Your task to perform on an android device: turn off translation in the chrome app Image 0: 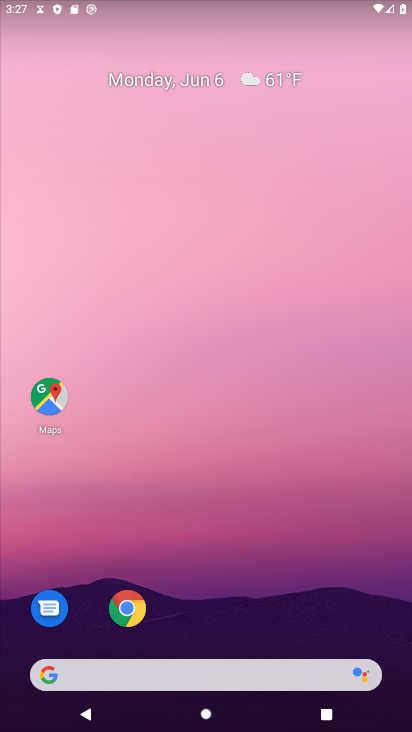
Step 0: click (119, 601)
Your task to perform on an android device: turn off translation in the chrome app Image 1: 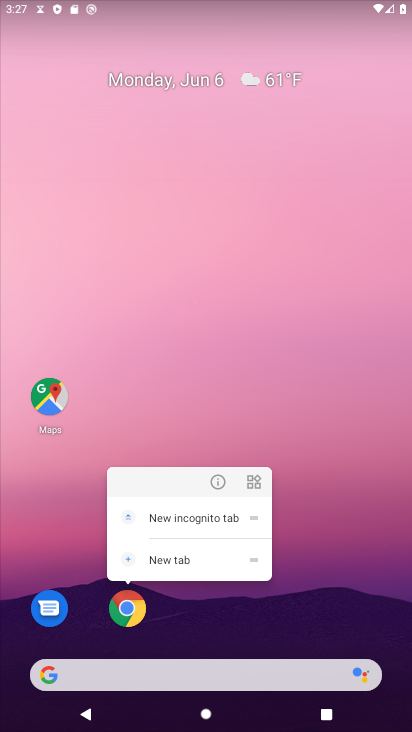
Step 1: click (119, 601)
Your task to perform on an android device: turn off translation in the chrome app Image 2: 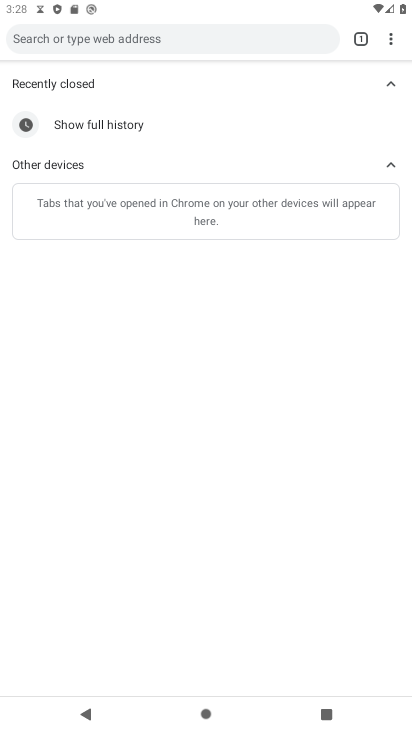
Step 2: click (387, 31)
Your task to perform on an android device: turn off translation in the chrome app Image 3: 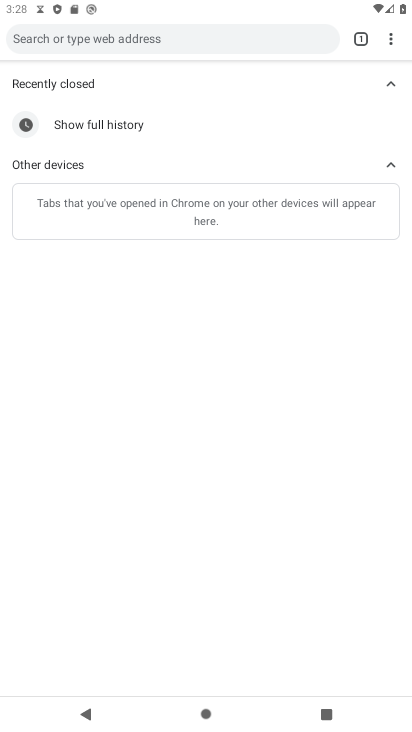
Step 3: click (384, 39)
Your task to perform on an android device: turn off translation in the chrome app Image 4: 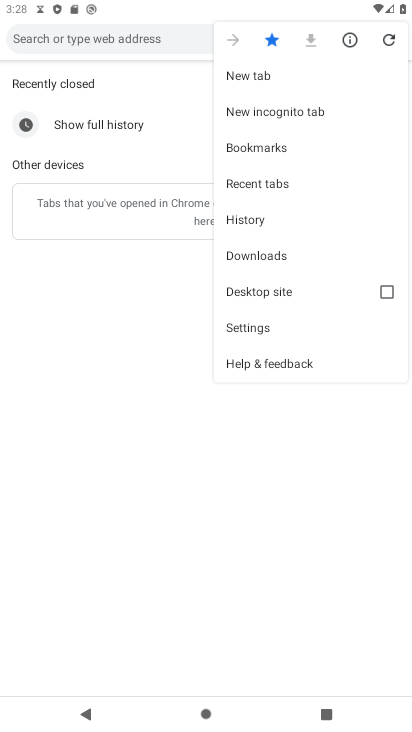
Step 4: click (258, 320)
Your task to perform on an android device: turn off translation in the chrome app Image 5: 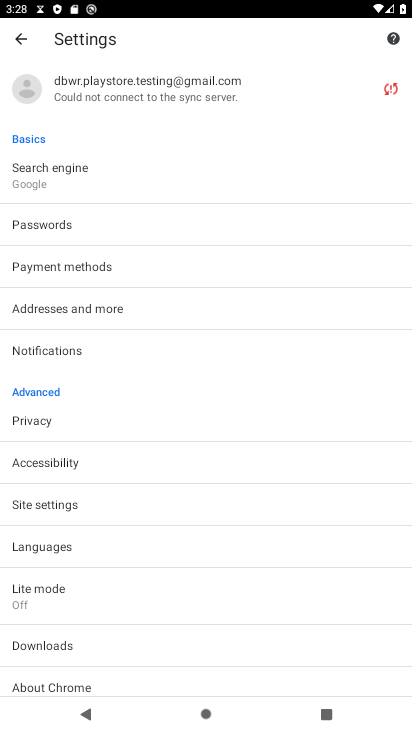
Step 5: drag from (159, 674) to (151, 424)
Your task to perform on an android device: turn off translation in the chrome app Image 6: 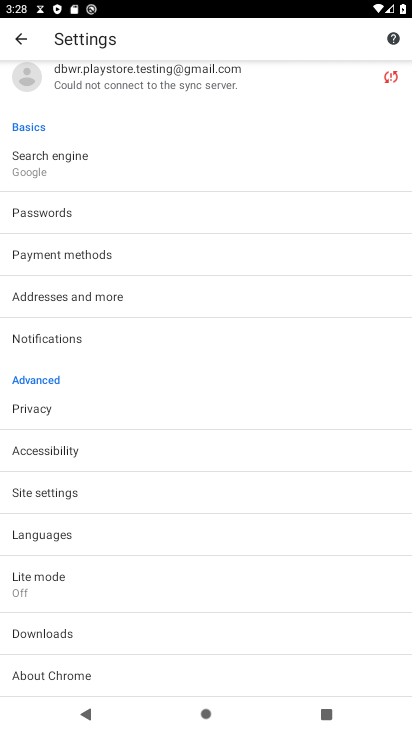
Step 6: click (49, 532)
Your task to perform on an android device: turn off translation in the chrome app Image 7: 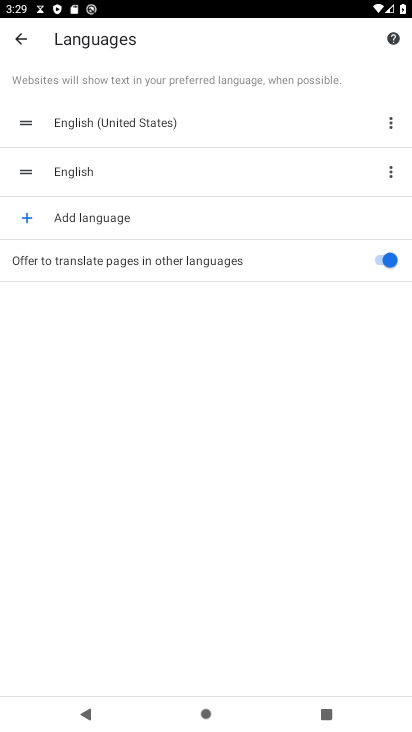
Step 7: click (372, 263)
Your task to perform on an android device: turn off translation in the chrome app Image 8: 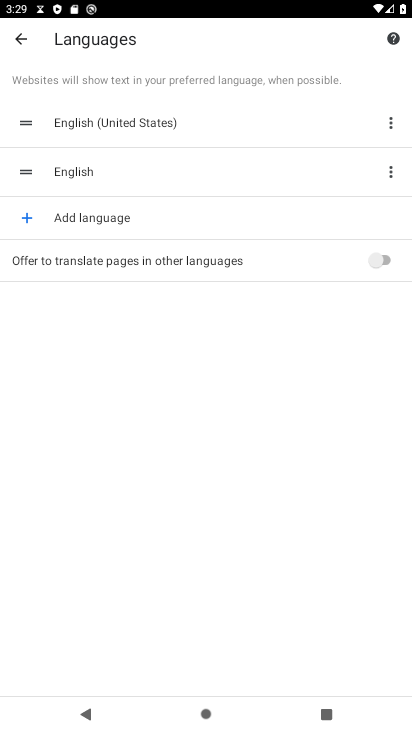
Step 8: task complete